Your task to perform on an android device: toggle priority inbox in the gmail app Image 0: 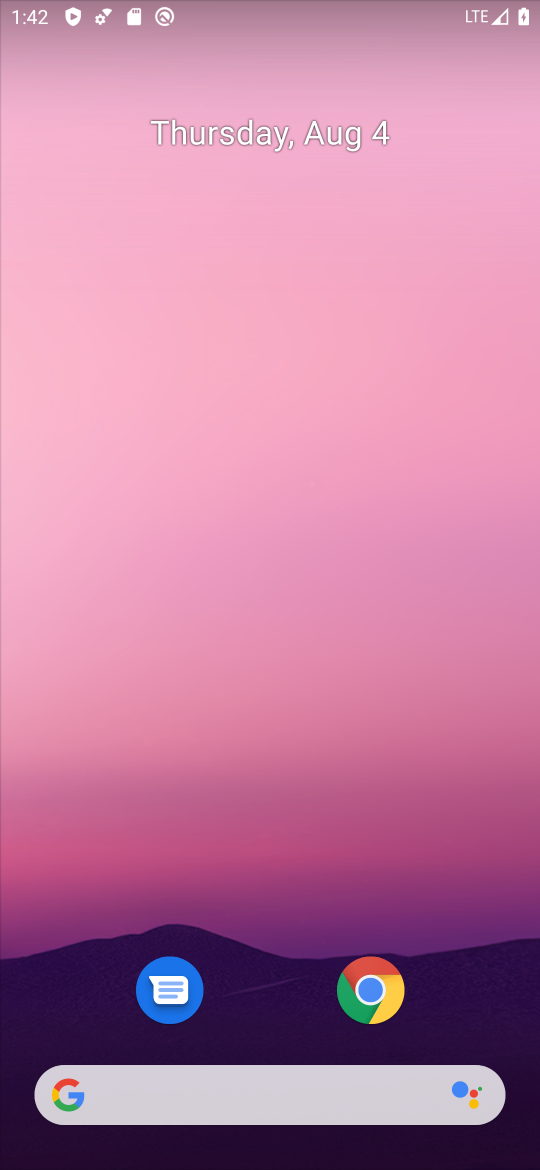
Step 0: drag from (227, 1052) to (110, 166)
Your task to perform on an android device: toggle priority inbox in the gmail app Image 1: 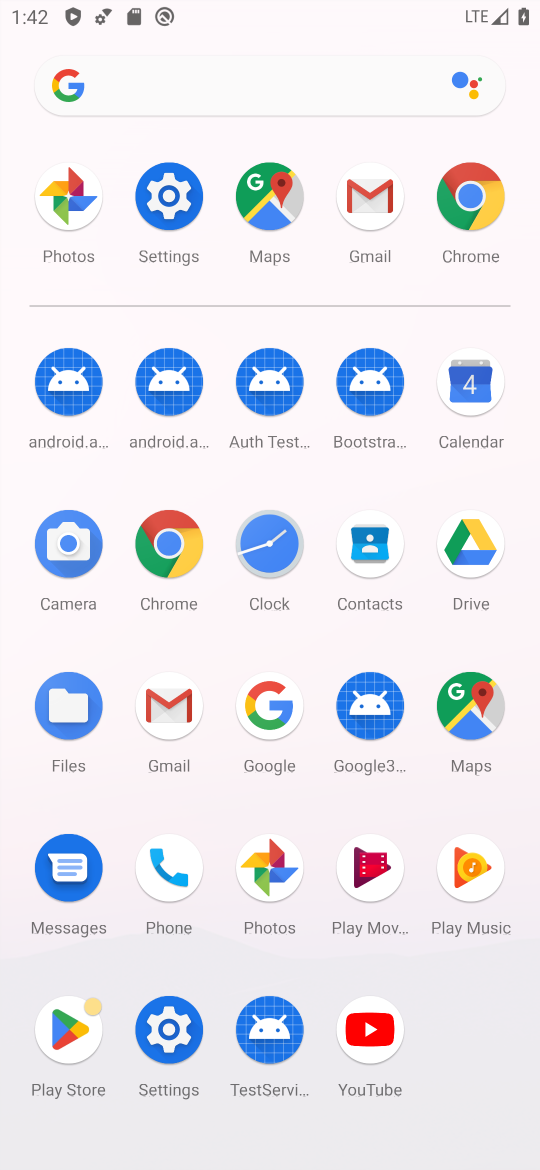
Step 1: click (175, 733)
Your task to perform on an android device: toggle priority inbox in the gmail app Image 2: 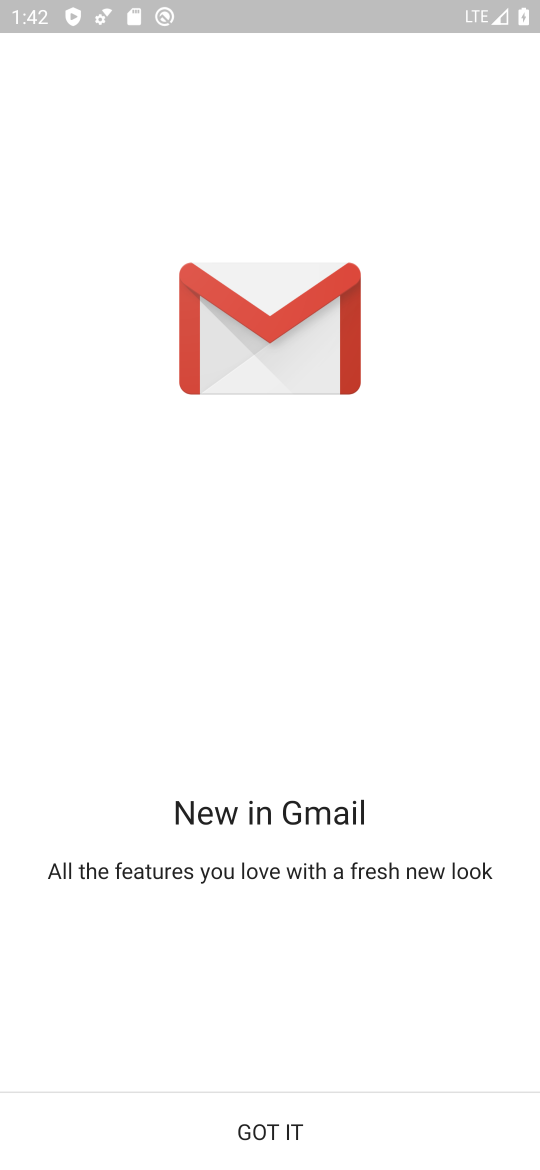
Step 2: click (279, 1117)
Your task to perform on an android device: toggle priority inbox in the gmail app Image 3: 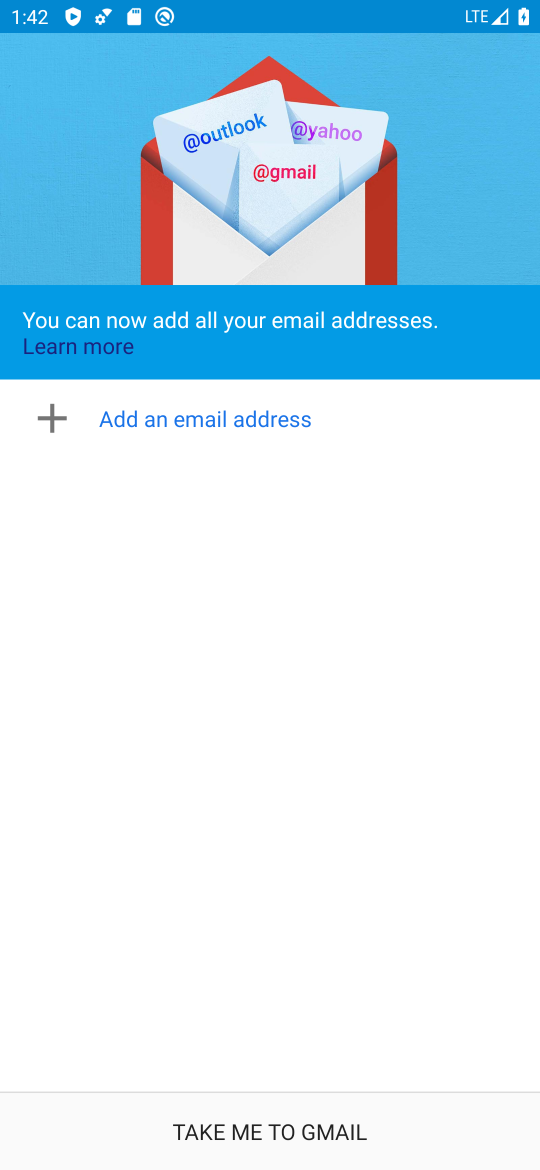
Step 3: click (280, 1115)
Your task to perform on an android device: toggle priority inbox in the gmail app Image 4: 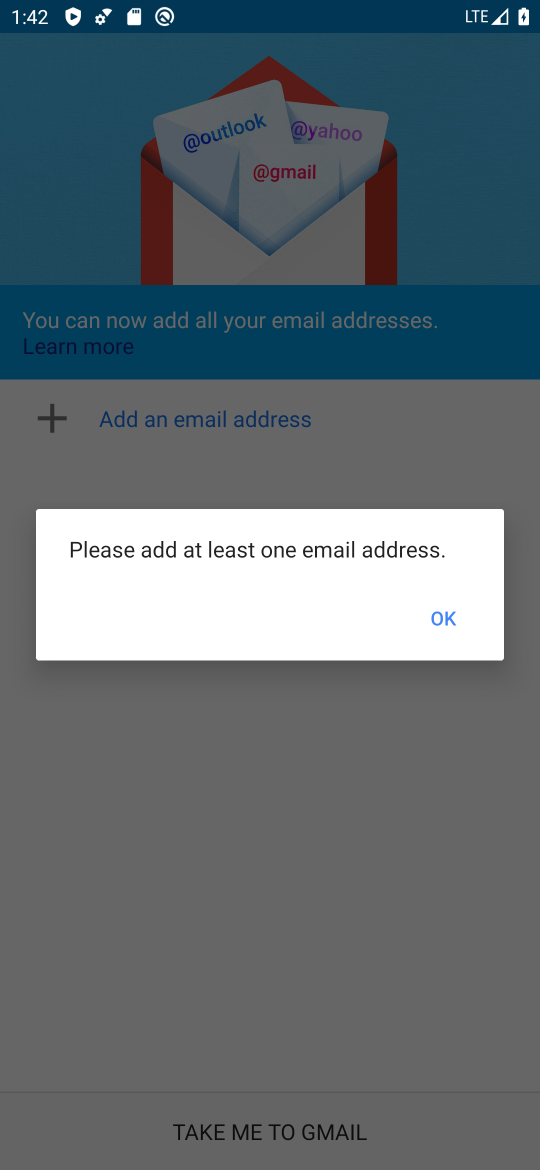
Step 4: task complete